Your task to perform on an android device: open chrome and create a bookmark for the current page Image 0: 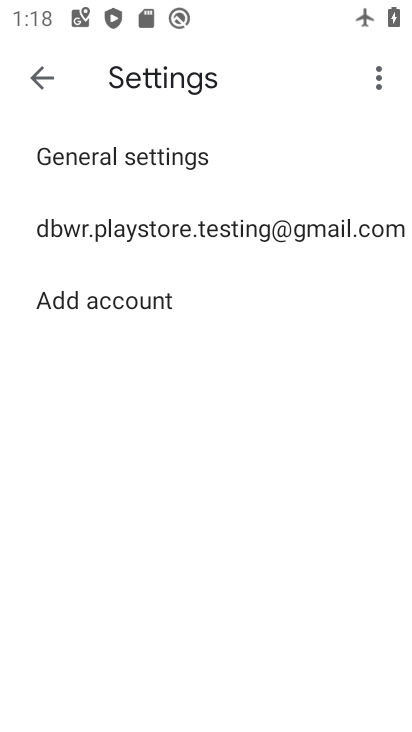
Step 0: press home button
Your task to perform on an android device: open chrome and create a bookmark for the current page Image 1: 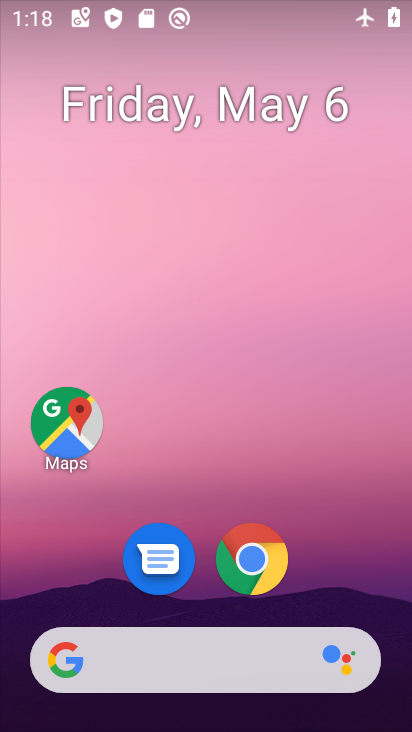
Step 1: drag from (251, 529) to (315, 12)
Your task to perform on an android device: open chrome and create a bookmark for the current page Image 2: 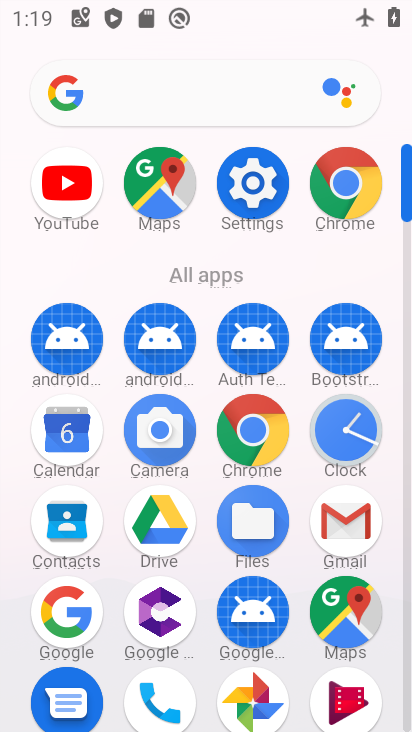
Step 2: click (355, 188)
Your task to perform on an android device: open chrome and create a bookmark for the current page Image 3: 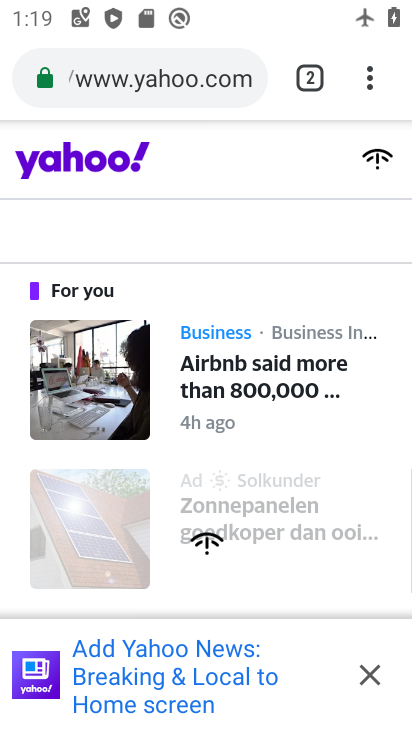
Step 3: drag from (369, 80) to (143, 300)
Your task to perform on an android device: open chrome and create a bookmark for the current page Image 4: 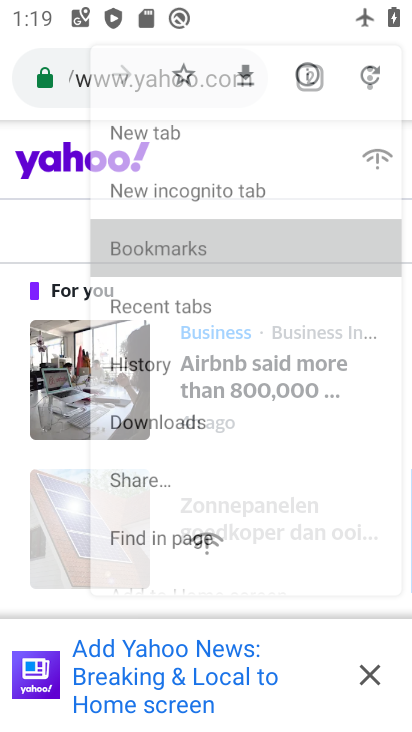
Step 4: click (143, 300)
Your task to perform on an android device: open chrome and create a bookmark for the current page Image 5: 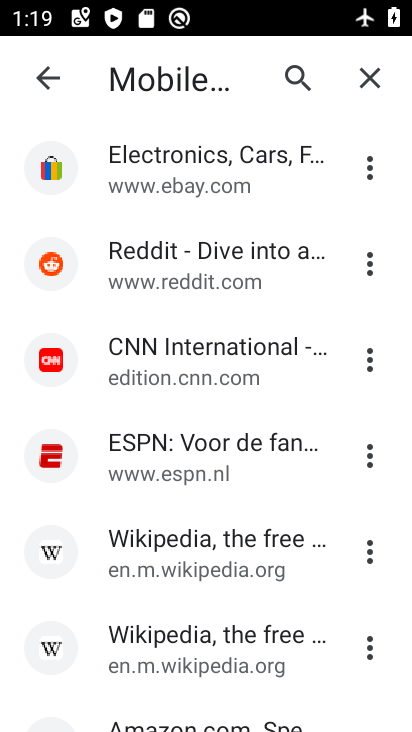
Step 5: task complete